Your task to perform on an android device: open app "DuckDuckGo Privacy Browser" (install if not already installed) Image 0: 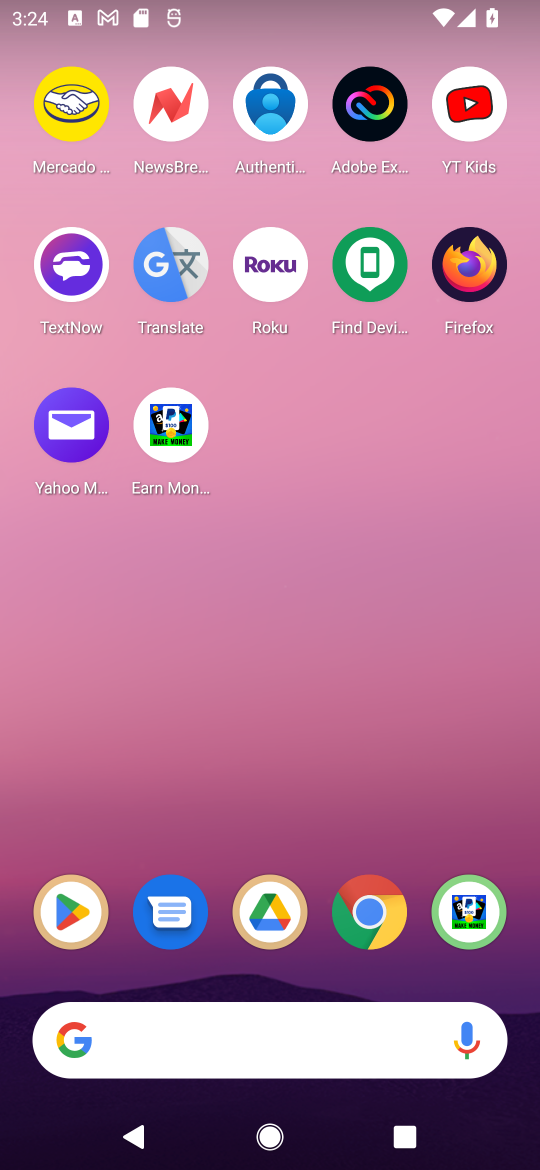
Step 0: click (71, 918)
Your task to perform on an android device: open app "DuckDuckGo Privacy Browser" (install if not already installed) Image 1: 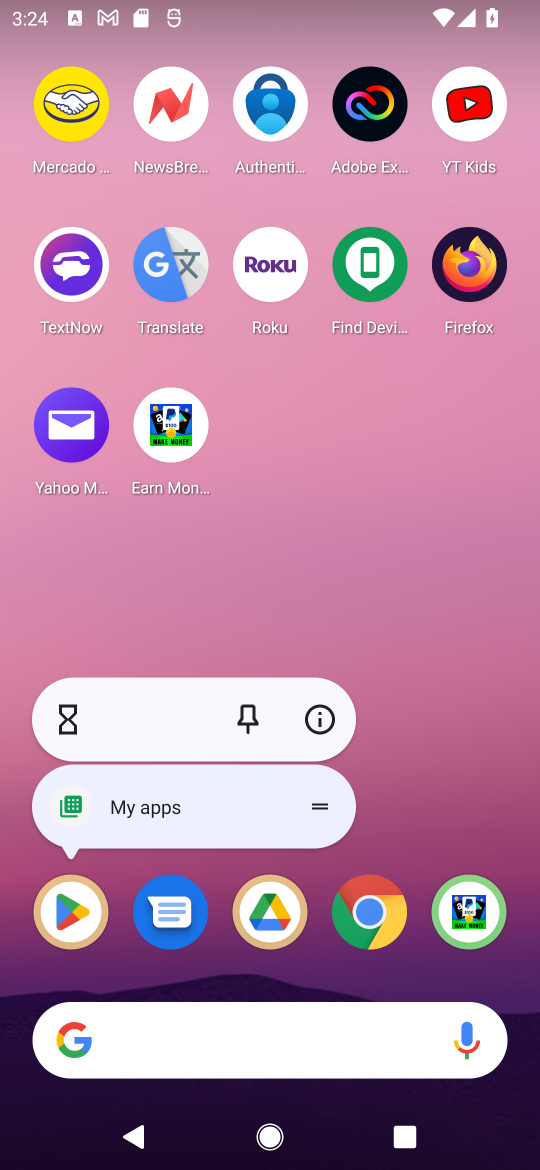
Step 1: click (68, 921)
Your task to perform on an android device: open app "DuckDuckGo Privacy Browser" (install if not already installed) Image 2: 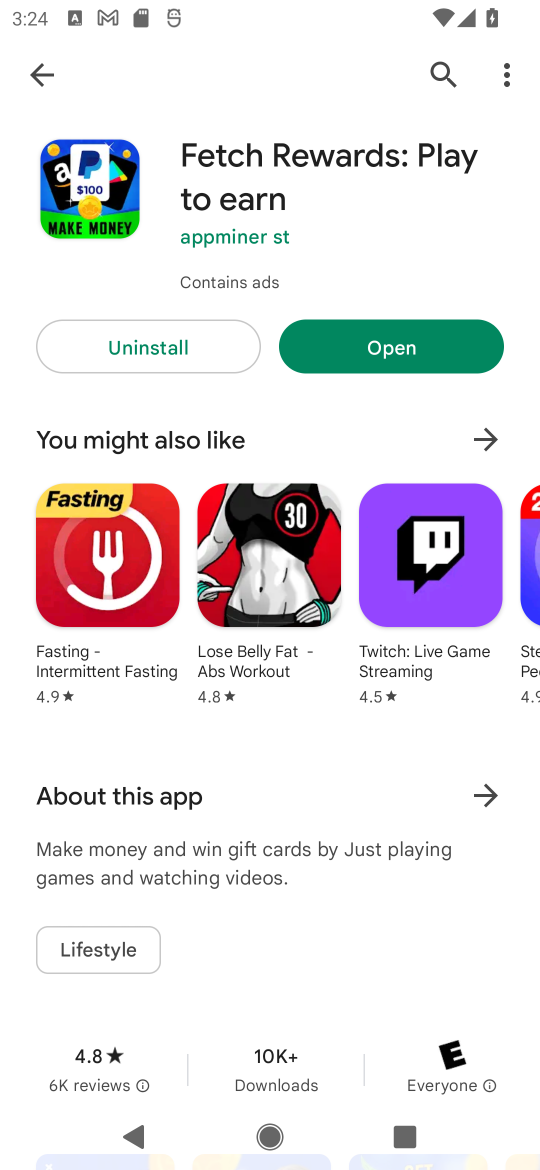
Step 2: click (445, 57)
Your task to perform on an android device: open app "DuckDuckGo Privacy Browser" (install if not already installed) Image 3: 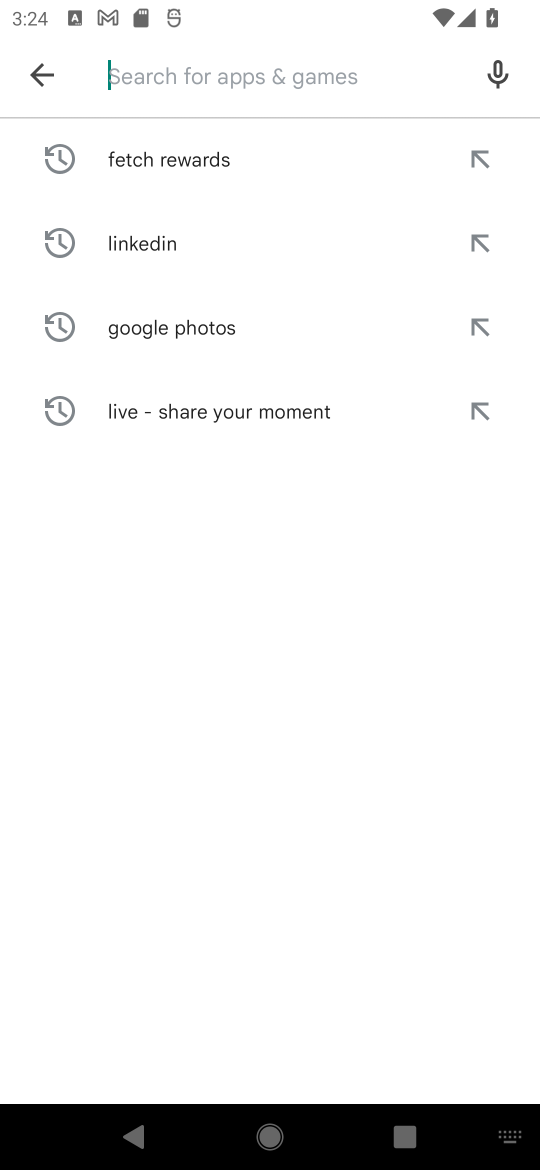
Step 3: click (332, 80)
Your task to perform on an android device: open app "DuckDuckGo Privacy Browser" (install if not already installed) Image 4: 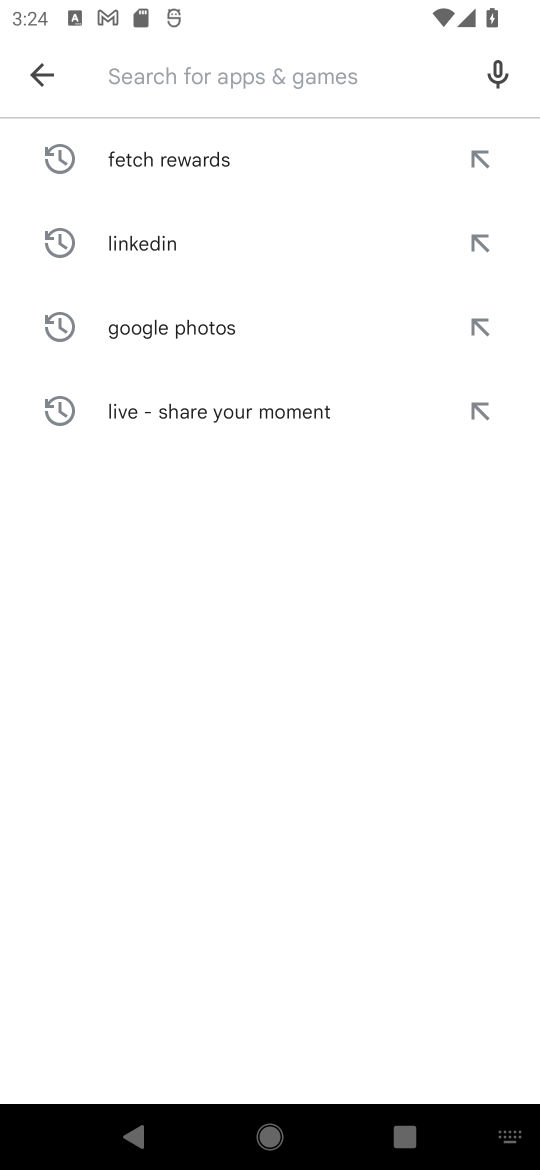
Step 4: type "DuckDuckGo Privacy Browser"
Your task to perform on an android device: open app "DuckDuckGo Privacy Browser" (install if not already installed) Image 5: 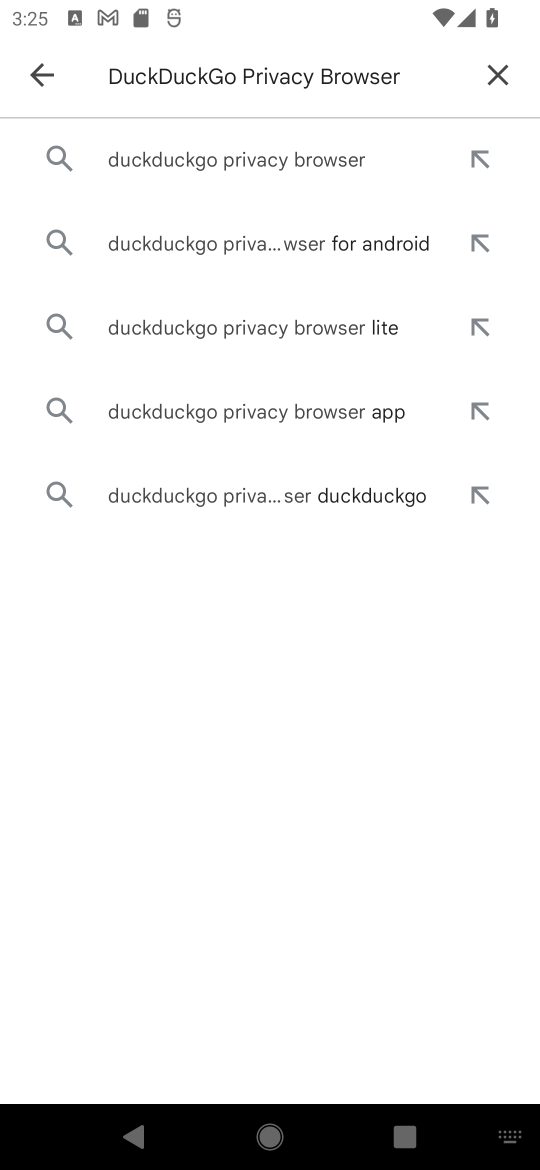
Step 5: click (252, 167)
Your task to perform on an android device: open app "DuckDuckGo Privacy Browser" (install if not already installed) Image 6: 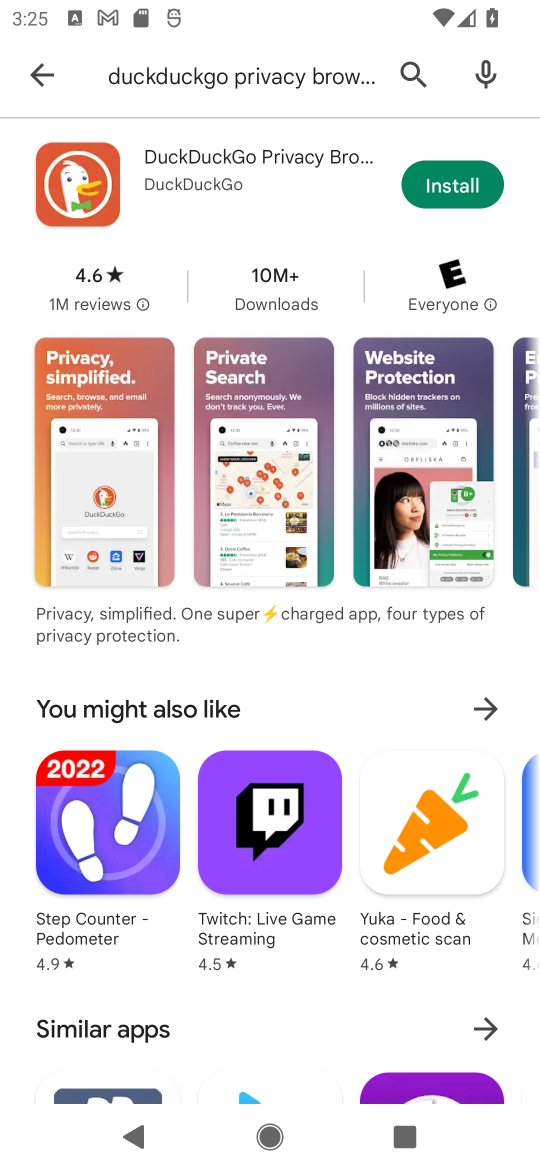
Step 6: click (441, 188)
Your task to perform on an android device: open app "DuckDuckGo Privacy Browser" (install if not already installed) Image 7: 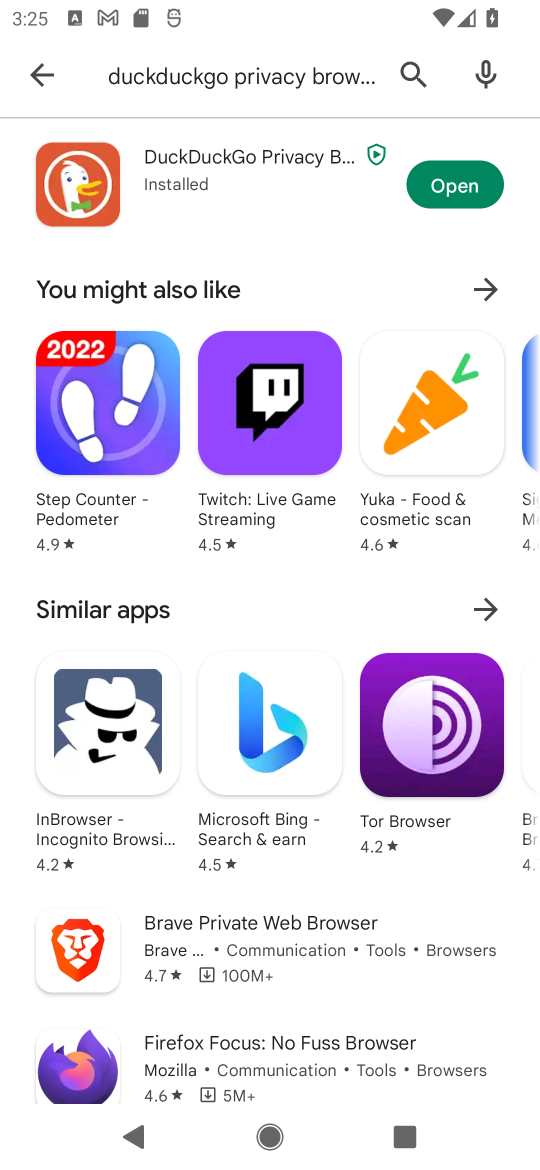
Step 7: click (443, 196)
Your task to perform on an android device: open app "DuckDuckGo Privacy Browser" (install if not already installed) Image 8: 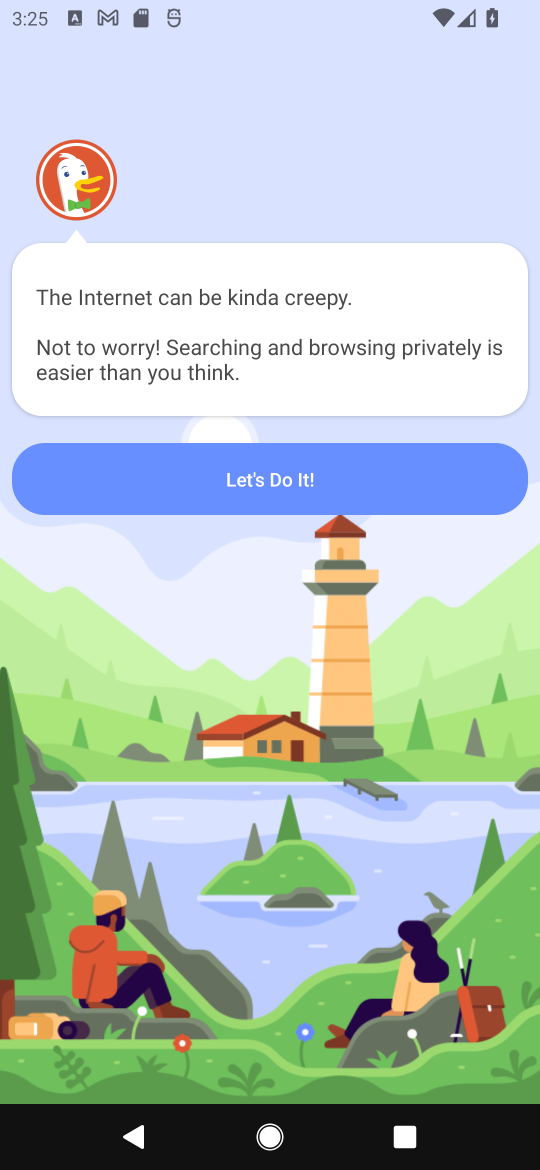
Step 8: task complete